Your task to perform on an android device: set an alarm Image 0: 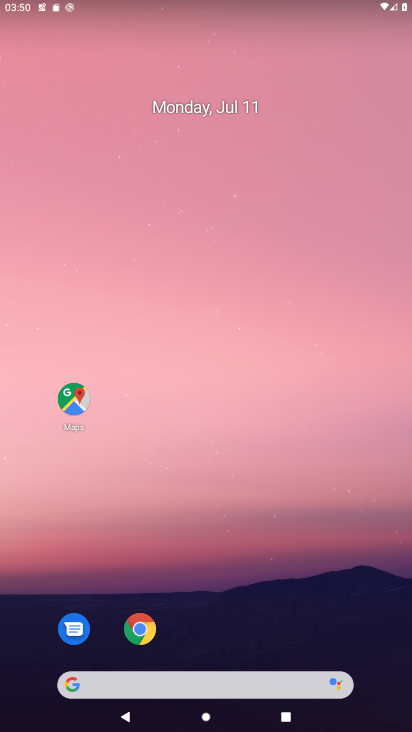
Step 0: drag from (272, 612) to (314, 130)
Your task to perform on an android device: set an alarm Image 1: 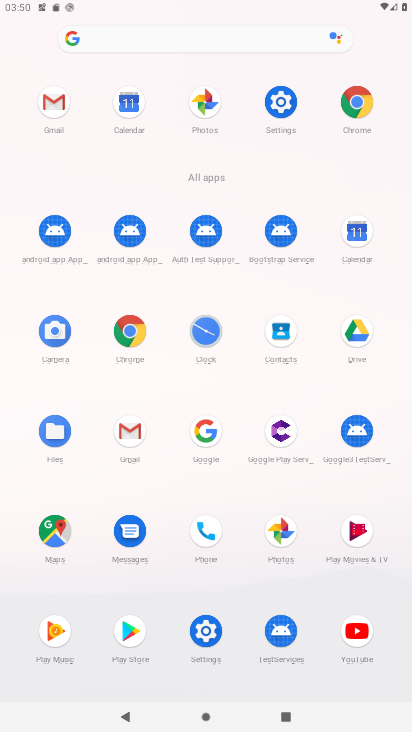
Step 1: click (193, 339)
Your task to perform on an android device: set an alarm Image 2: 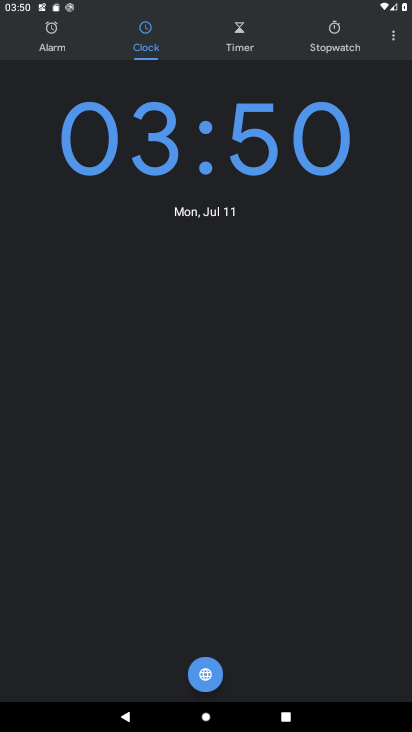
Step 2: click (50, 36)
Your task to perform on an android device: set an alarm Image 3: 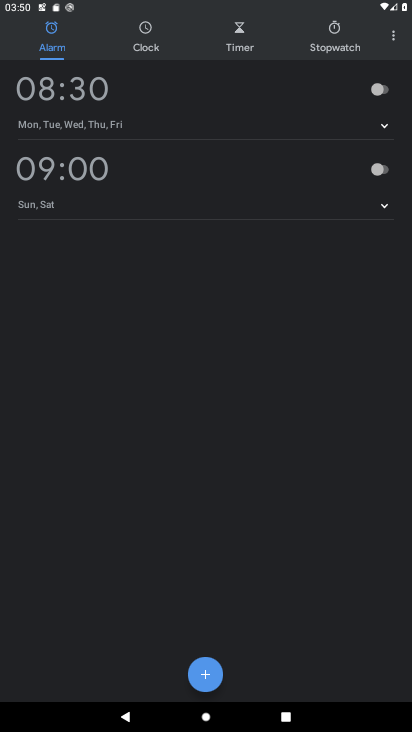
Step 3: click (380, 90)
Your task to perform on an android device: set an alarm Image 4: 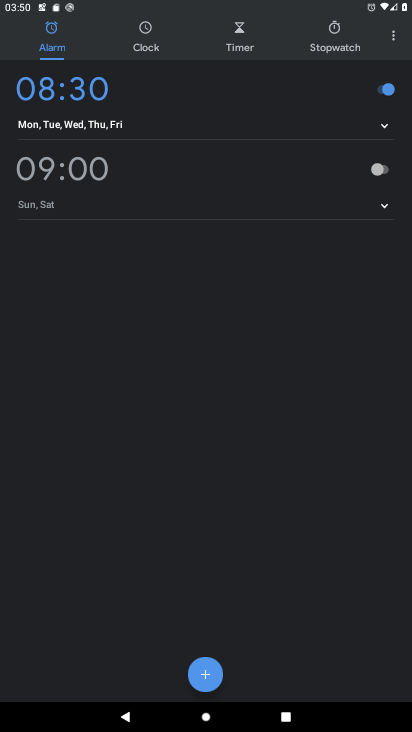
Step 4: task complete